Your task to perform on an android device: change the clock display to analog Image 0: 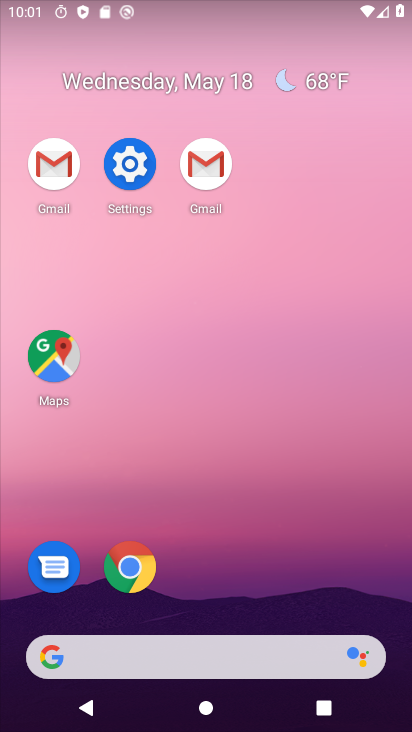
Step 0: drag from (293, 445) to (299, 140)
Your task to perform on an android device: change the clock display to analog Image 1: 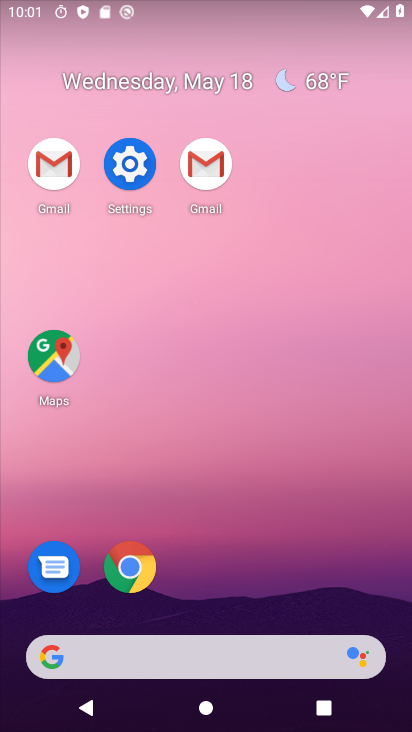
Step 1: drag from (308, 572) to (257, 122)
Your task to perform on an android device: change the clock display to analog Image 2: 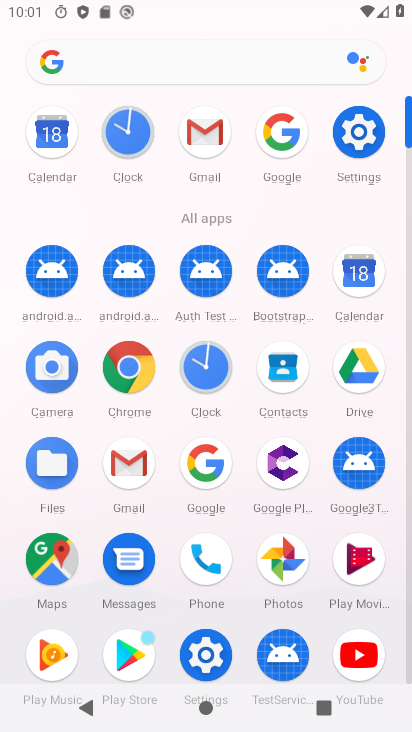
Step 2: drag from (199, 366) to (283, 200)
Your task to perform on an android device: change the clock display to analog Image 3: 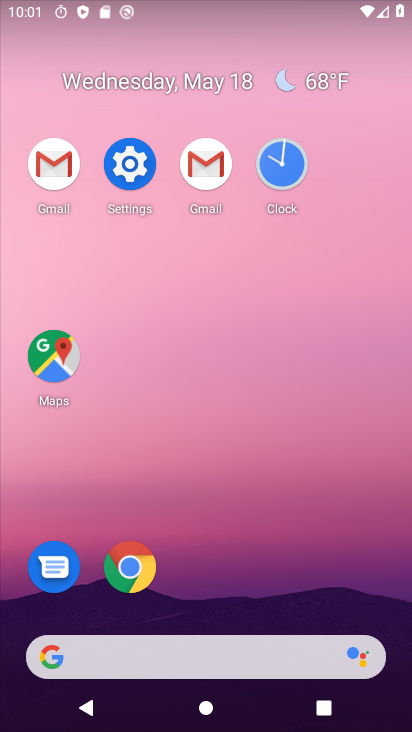
Step 3: click (269, 171)
Your task to perform on an android device: change the clock display to analog Image 4: 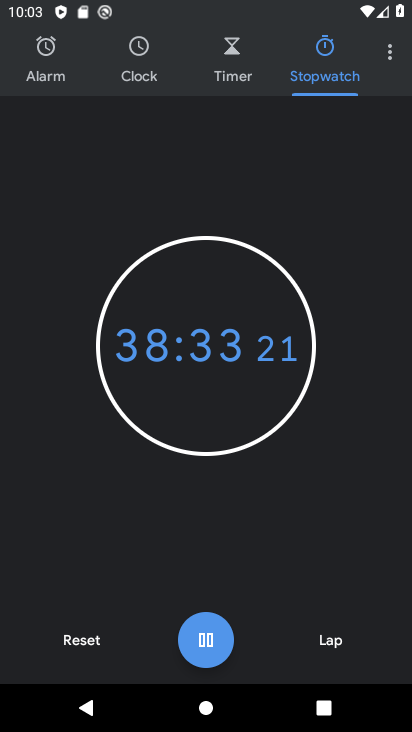
Step 4: click (385, 52)
Your task to perform on an android device: change the clock display to analog Image 5: 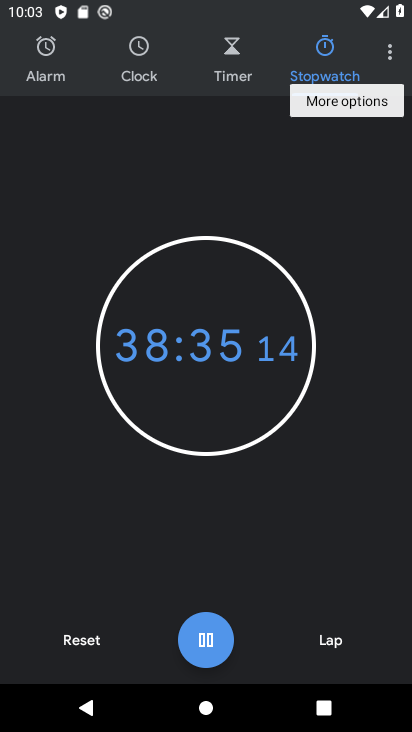
Step 5: click (399, 59)
Your task to perform on an android device: change the clock display to analog Image 6: 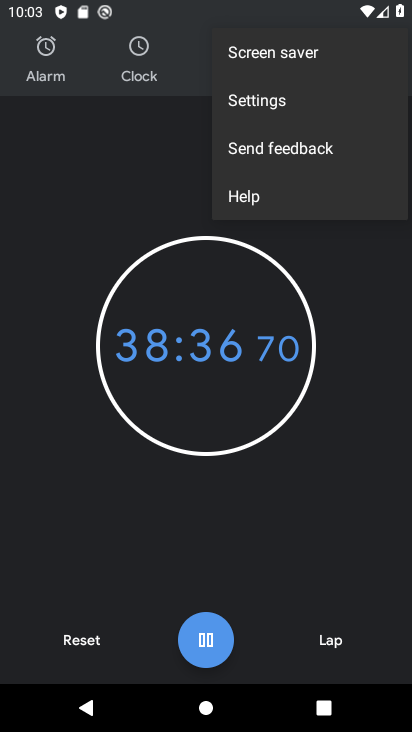
Step 6: click (286, 96)
Your task to perform on an android device: change the clock display to analog Image 7: 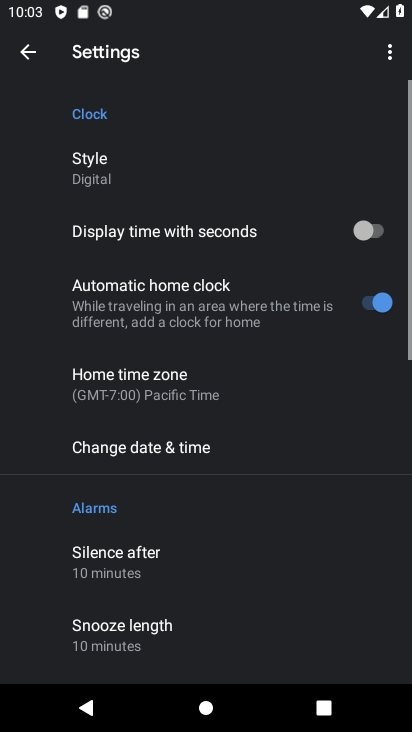
Step 7: click (149, 184)
Your task to perform on an android device: change the clock display to analog Image 8: 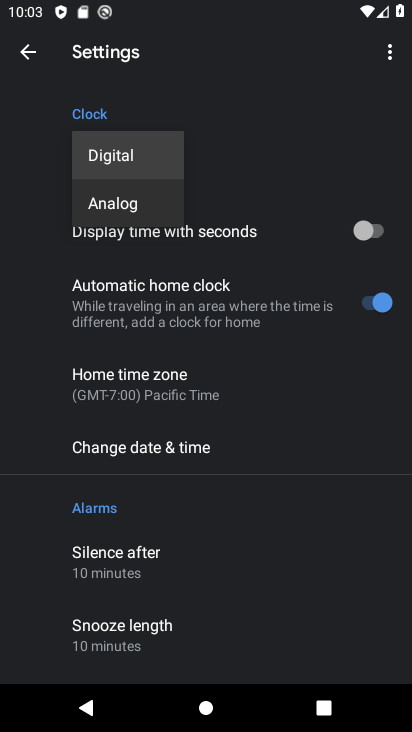
Step 8: click (154, 202)
Your task to perform on an android device: change the clock display to analog Image 9: 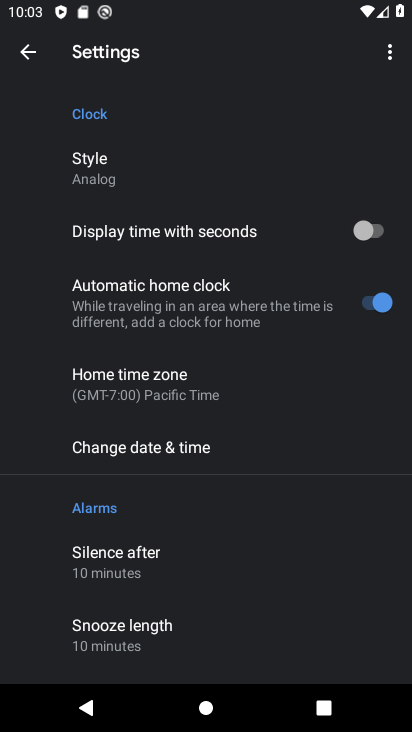
Step 9: task complete